Your task to perform on an android device: empty trash in google photos Image 0: 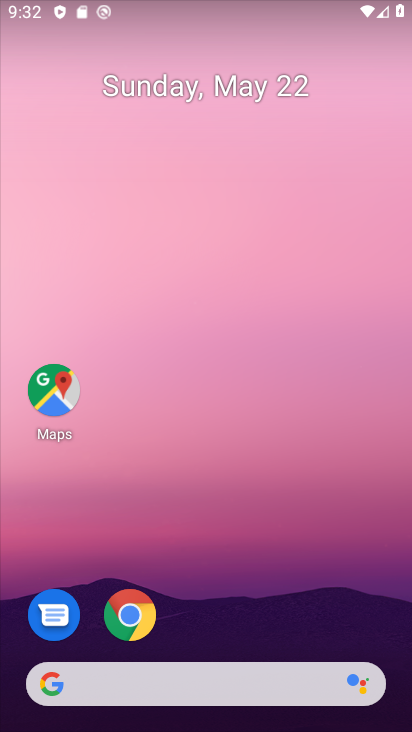
Step 0: drag from (287, 582) to (255, 109)
Your task to perform on an android device: empty trash in google photos Image 1: 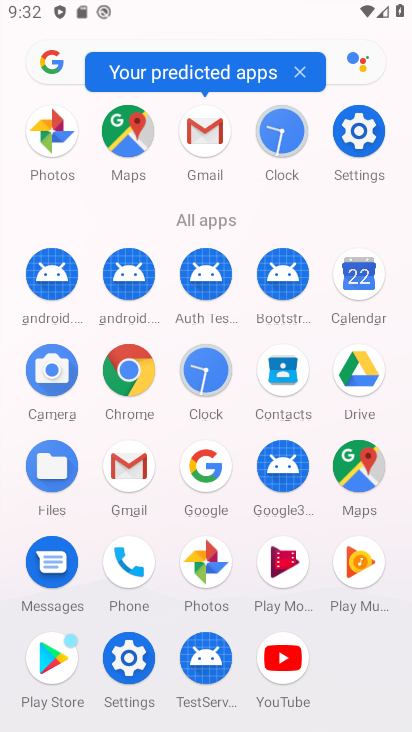
Step 1: click (217, 545)
Your task to perform on an android device: empty trash in google photos Image 2: 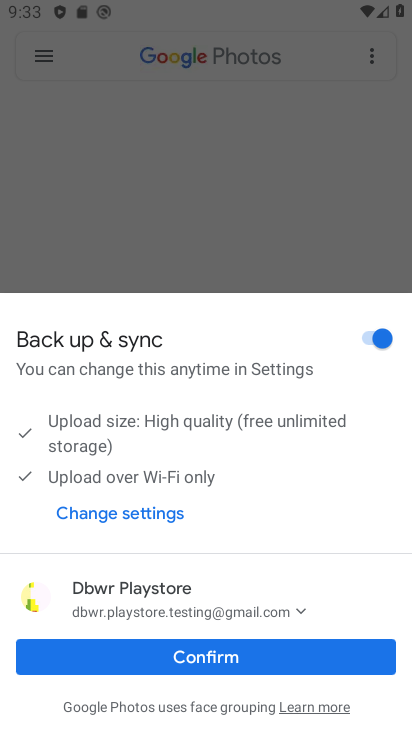
Step 2: click (249, 656)
Your task to perform on an android device: empty trash in google photos Image 3: 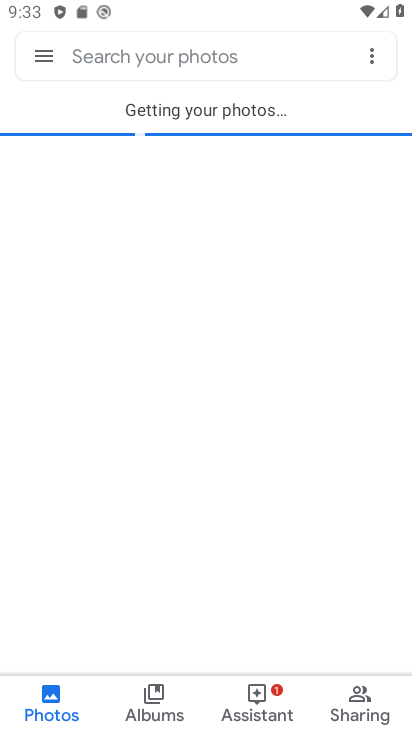
Step 3: click (48, 54)
Your task to perform on an android device: empty trash in google photos Image 4: 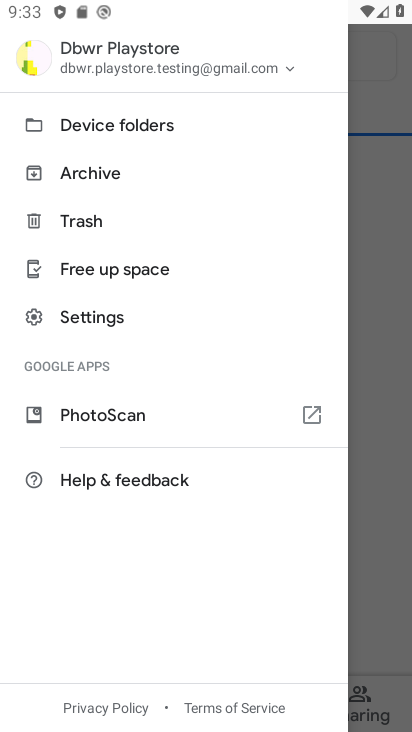
Step 4: click (107, 211)
Your task to perform on an android device: empty trash in google photos Image 5: 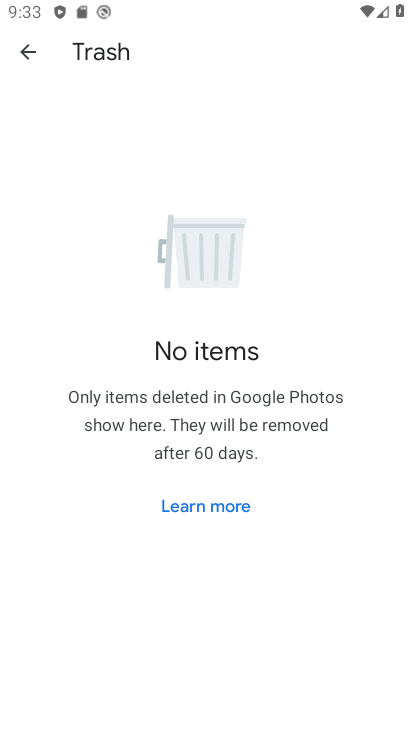
Step 5: task complete